Your task to perform on an android device: Open my contact list Image 0: 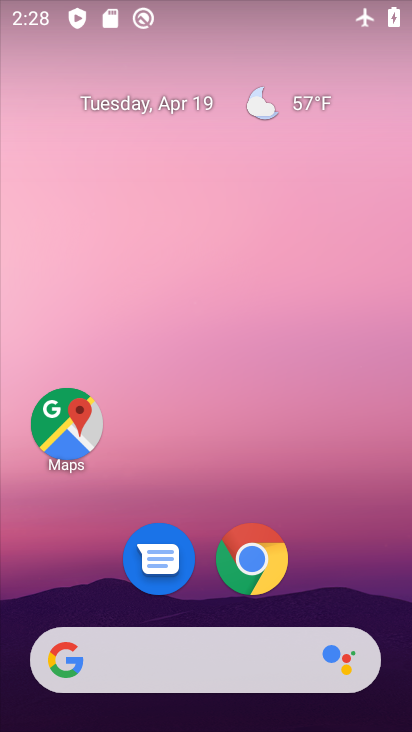
Step 0: drag from (390, 440) to (394, 98)
Your task to perform on an android device: Open my contact list Image 1: 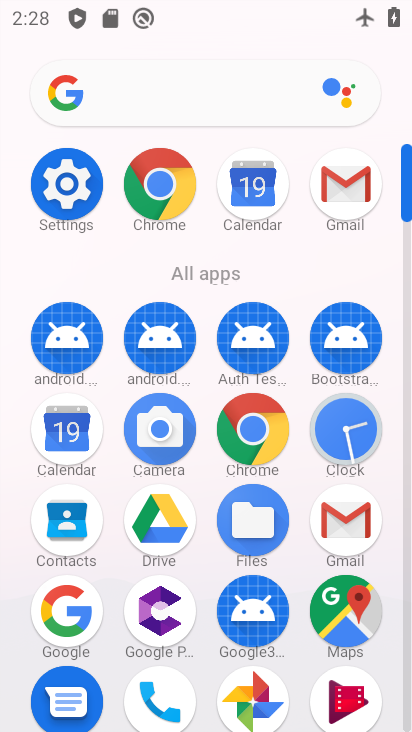
Step 1: click (62, 531)
Your task to perform on an android device: Open my contact list Image 2: 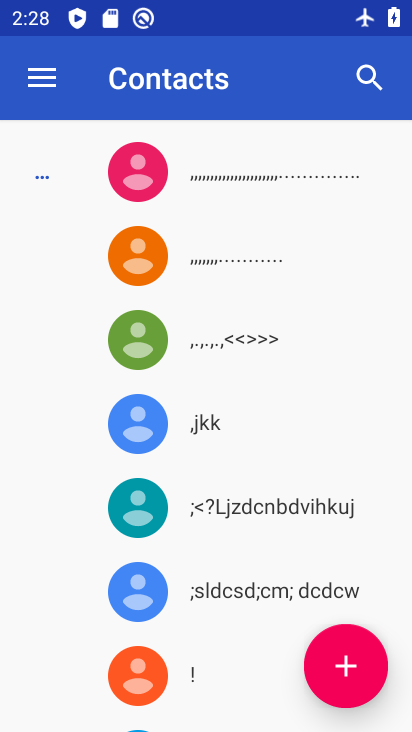
Step 2: task complete